Your task to perform on an android device: Go to Reddit.com Image 0: 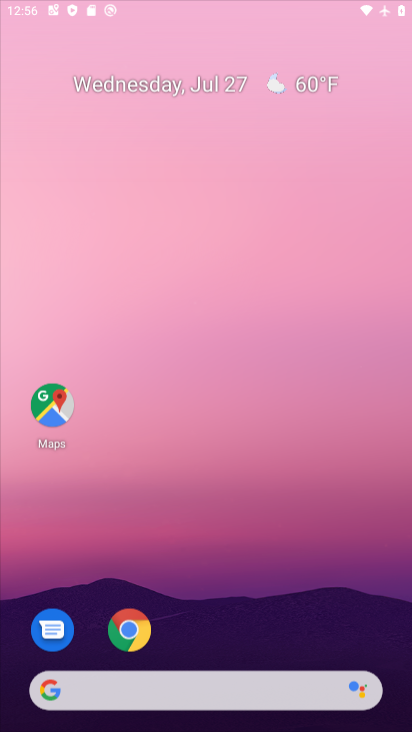
Step 0: press home button
Your task to perform on an android device: Go to Reddit.com Image 1: 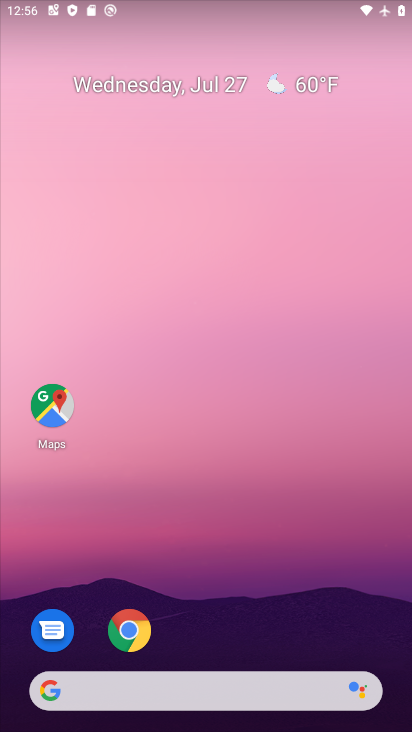
Step 1: click (55, 678)
Your task to perform on an android device: Go to Reddit.com Image 2: 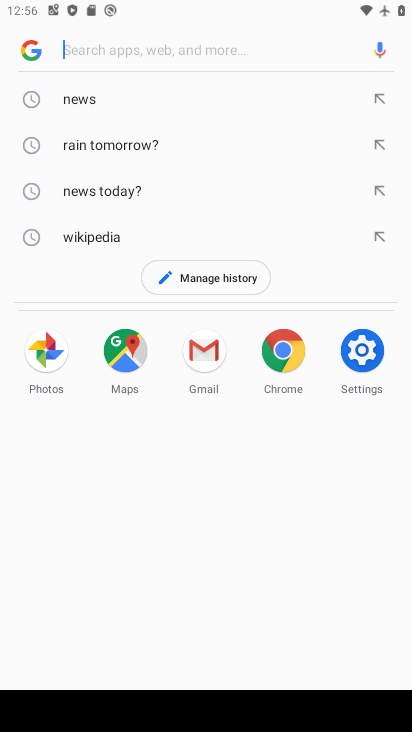
Step 2: type "Reddit.com"
Your task to perform on an android device: Go to Reddit.com Image 3: 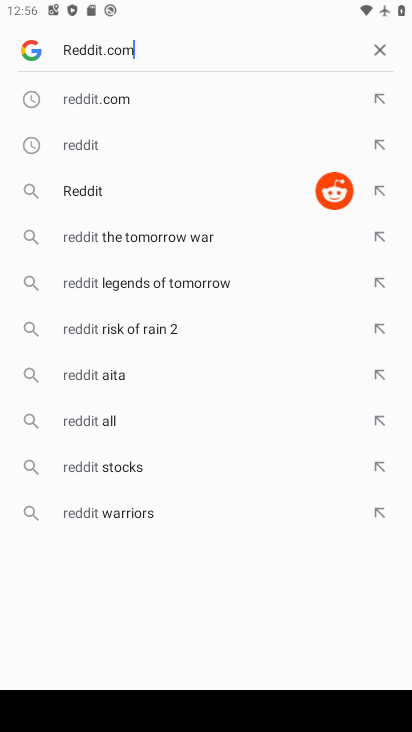
Step 3: press enter
Your task to perform on an android device: Go to Reddit.com Image 4: 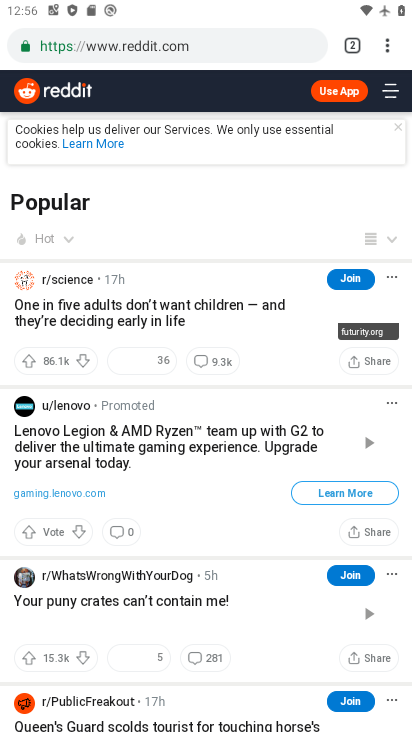
Step 4: task complete